Your task to perform on an android device: Open Android settings Image 0: 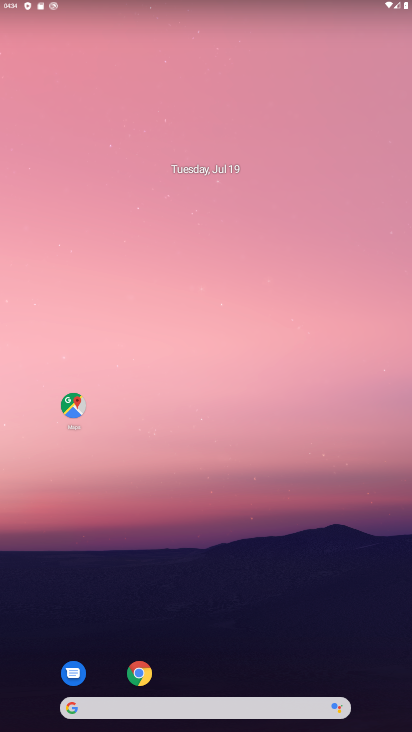
Step 0: drag from (246, 655) to (293, 87)
Your task to perform on an android device: Open Android settings Image 1: 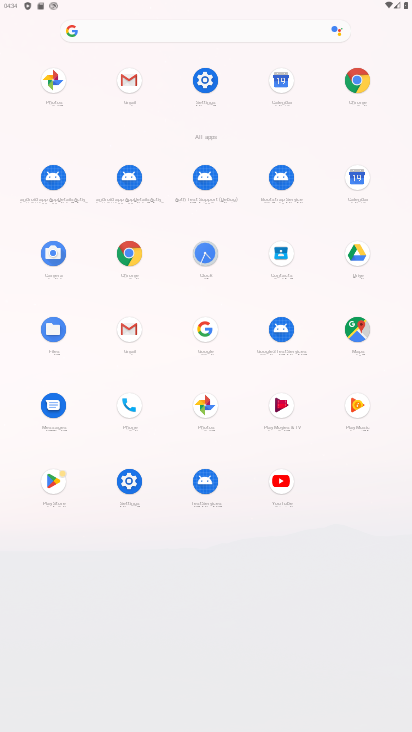
Step 1: click (125, 495)
Your task to perform on an android device: Open Android settings Image 2: 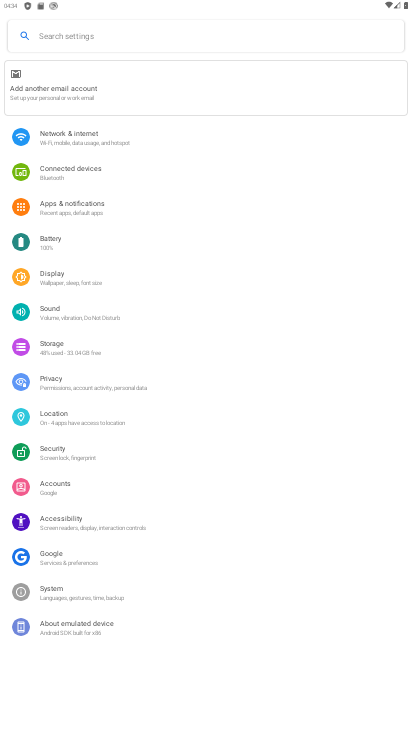
Step 2: click (85, 634)
Your task to perform on an android device: Open Android settings Image 3: 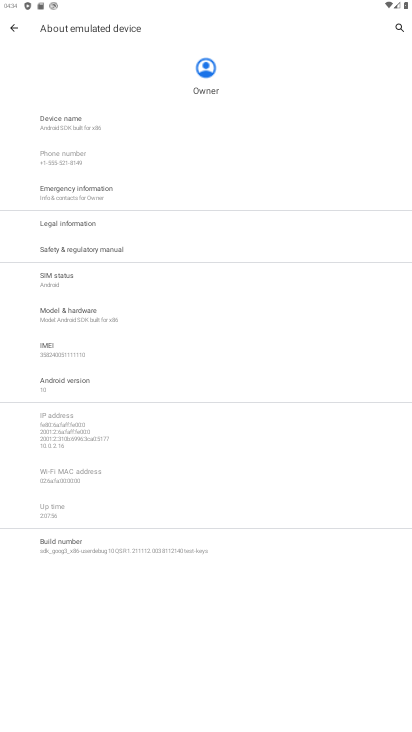
Step 3: click (72, 385)
Your task to perform on an android device: Open Android settings Image 4: 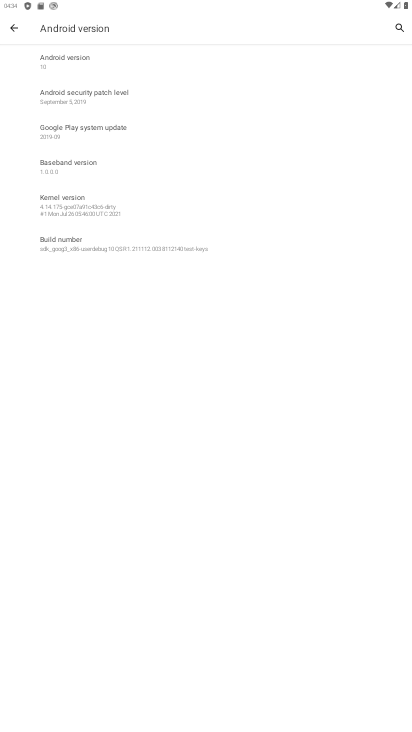
Step 4: task complete